Your task to perform on an android device: Open internet settings Image 0: 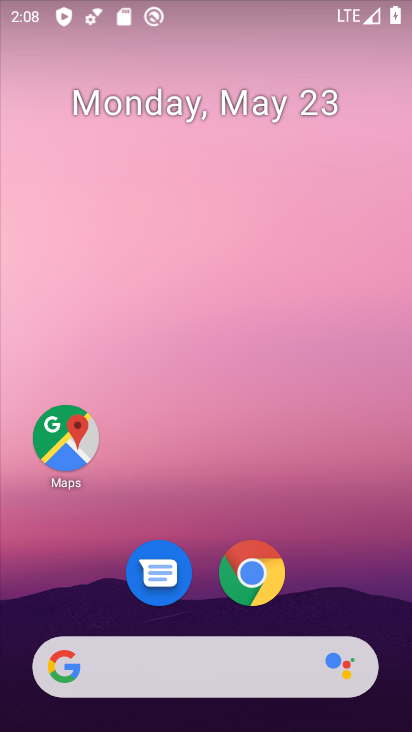
Step 0: click (325, 137)
Your task to perform on an android device: Open internet settings Image 1: 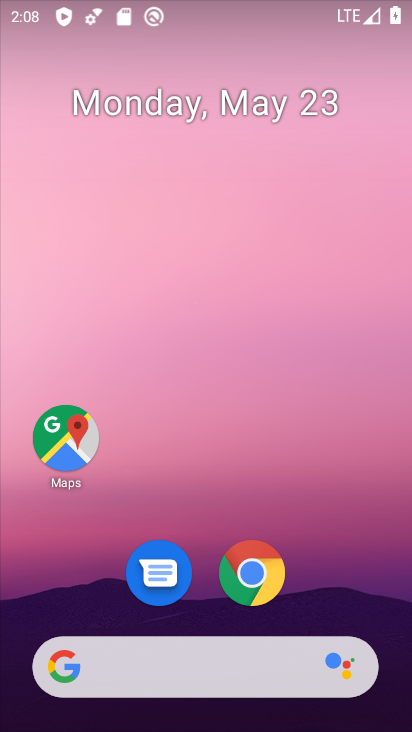
Step 1: drag from (324, 227) to (324, 155)
Your task to perform on an android device: Open internet settings Image 2: 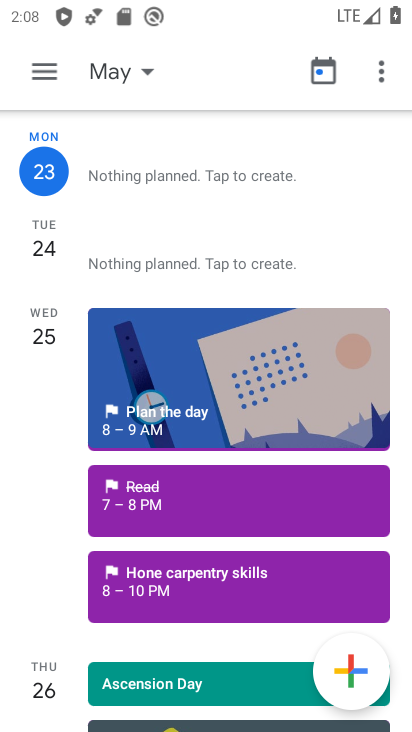
Step 2: press home button
Your task to perform on an android device: Open internet settings Image 3: 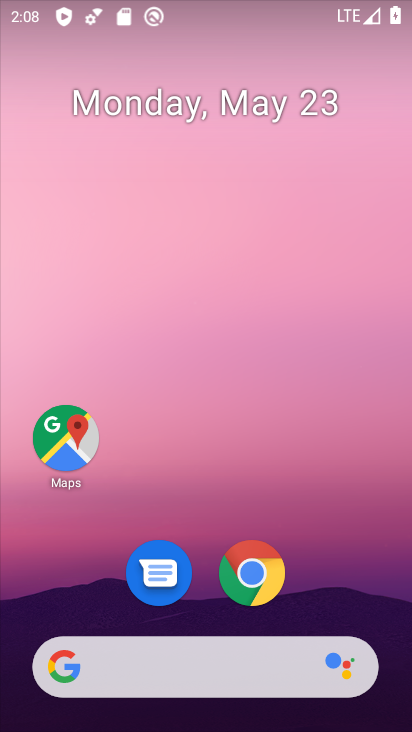
Step 3: drag from (312, 436) to (247, 94)
Your task to perform on an android device: Open internet settings Image 4: 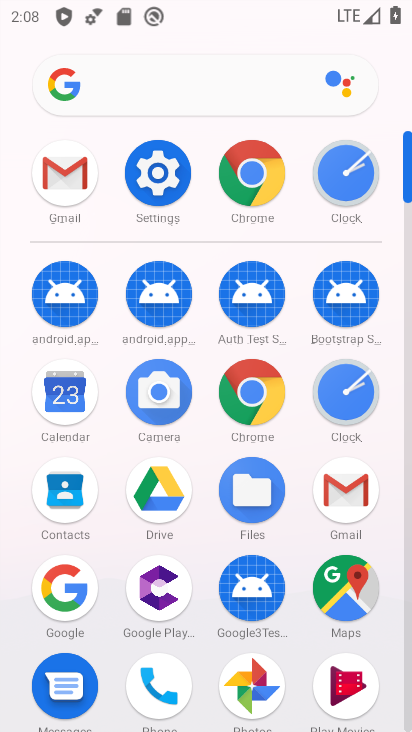
Step 4: click (162, 186)
Your task to perform on an android device: Open internet settings Image 5: 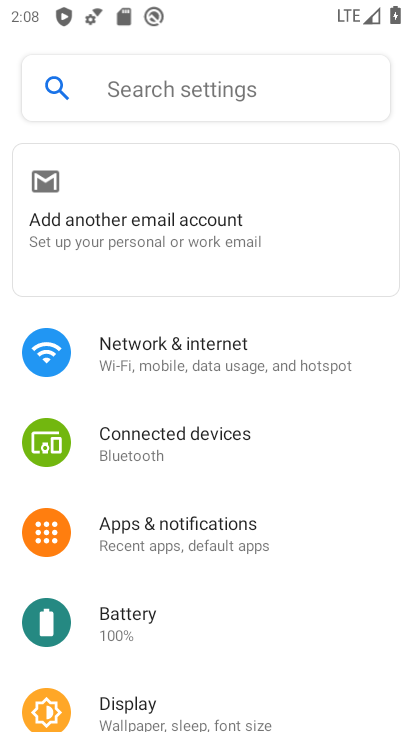
Step 5: click (191, 356)
Your task to perform on an android device: Open internet settings Image 6: 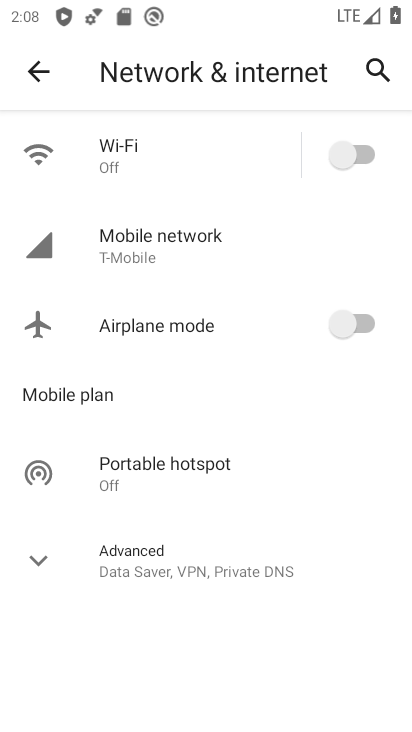
Step 6: click (140, 577)
Your task to perform on an android device: Open internet settings Image 7: 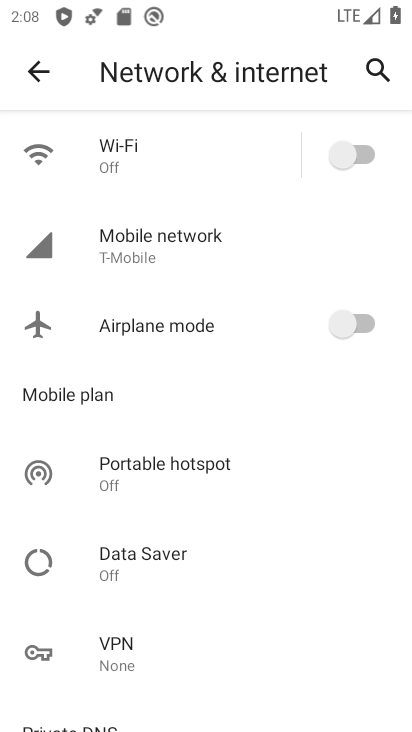
Step 7: task complete